Your task to perform on an android device: turn on airplane mode Image 0: 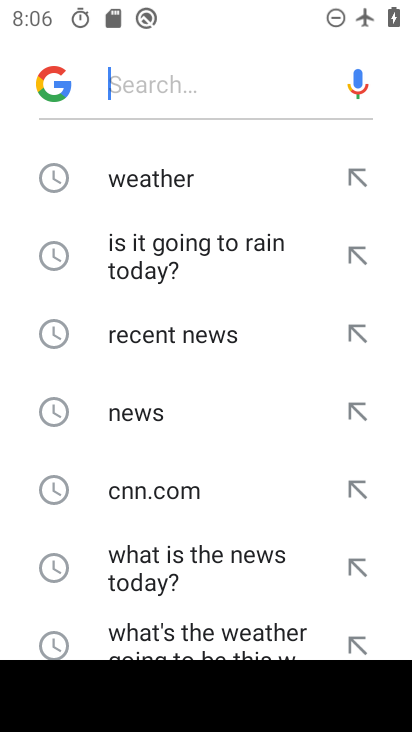
Step 0: press home button
Your task to perform on an android device: turn on airplane mode Image 1: 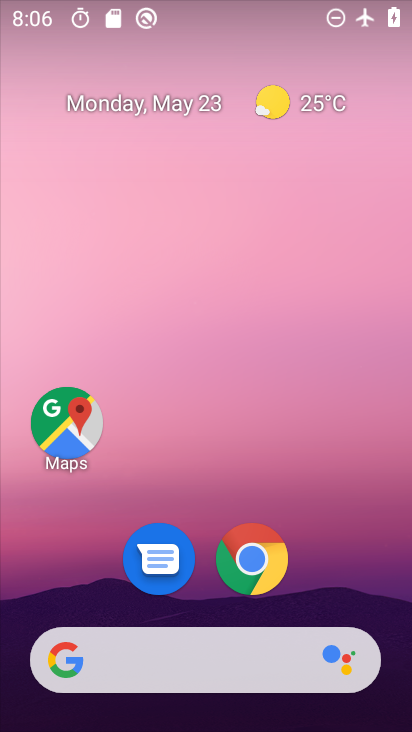
Step 1: task complete